Your task to perform on an android device: turn off sleep mode Image 0: 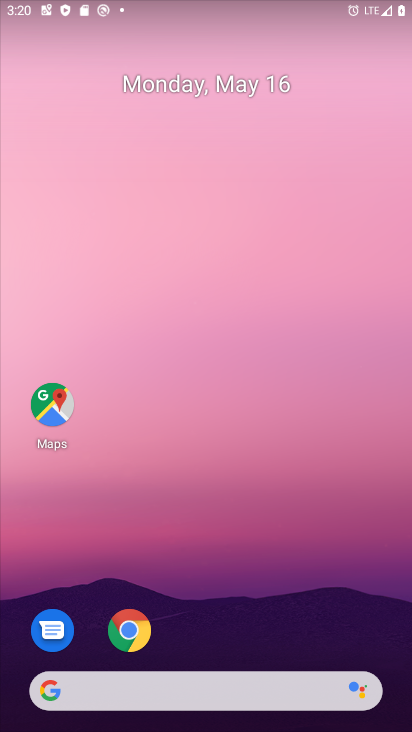
Step 0: press home button
Your task to perform on an android device: turn off sleep mode Image 1: 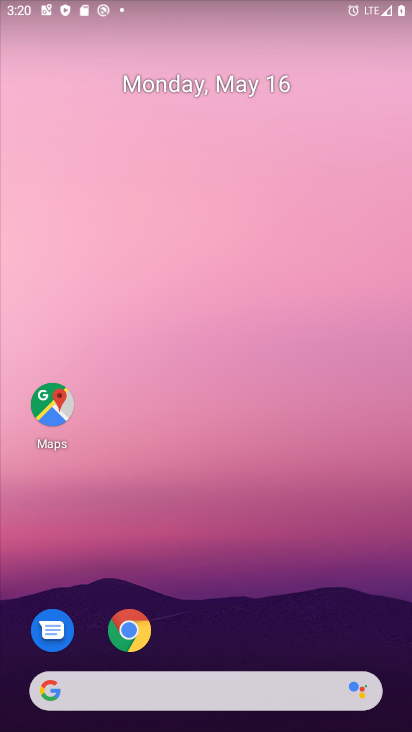
Step 1: drag from (228, 633) to (214, 198)
Your task to perform on an android device: turn off sleep mode Image 2: 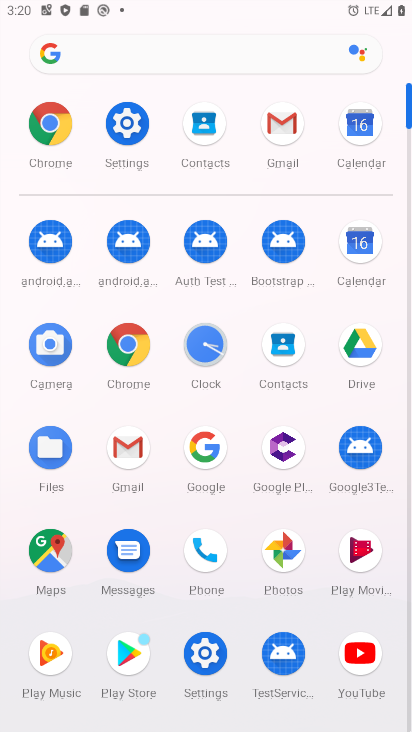
Step 2: click (126, 118)
Your task to perform on an android device: turn off sleep mode Image 3: 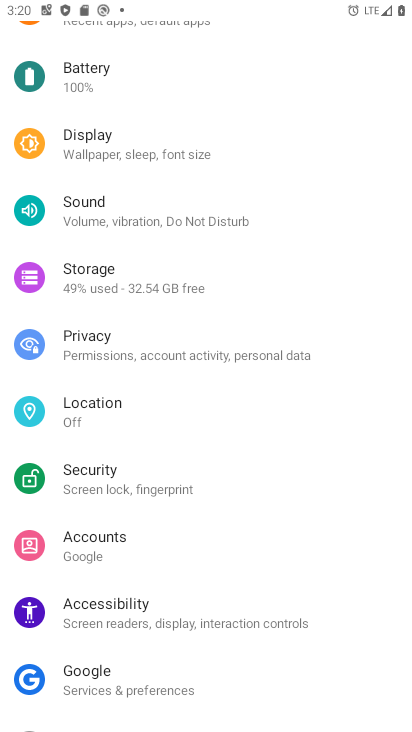
Step 3: click (127, 138)
Your task to perform on an android device: turn off sleep mode Image 4: 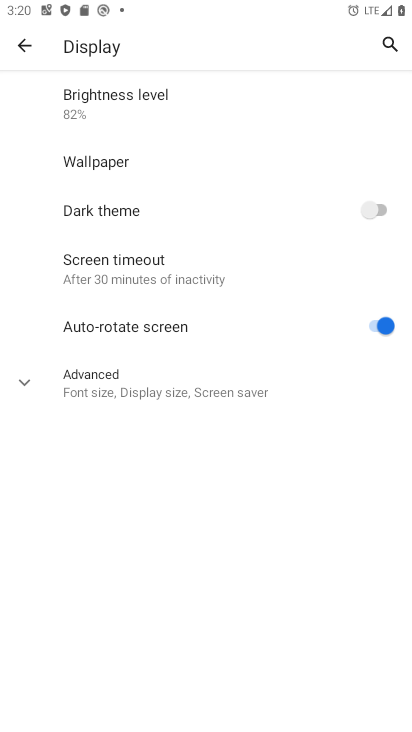
Step 4: click (55, 378)
Your task to perform on an android device: turn off sleep mode Image 5: 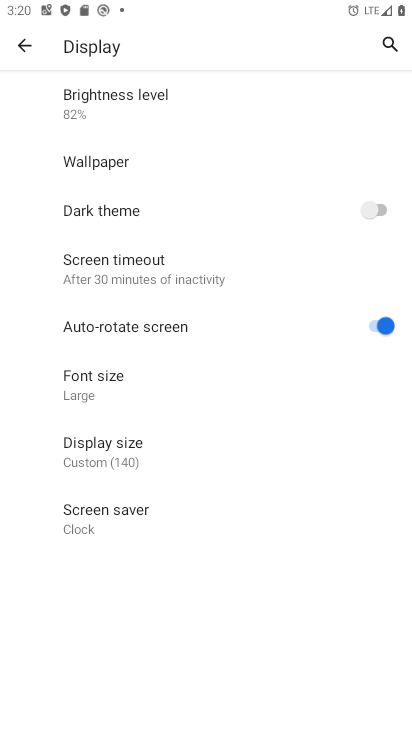
Step 5: task complete